Your task to perform on an android device: check out phone information Image 0: 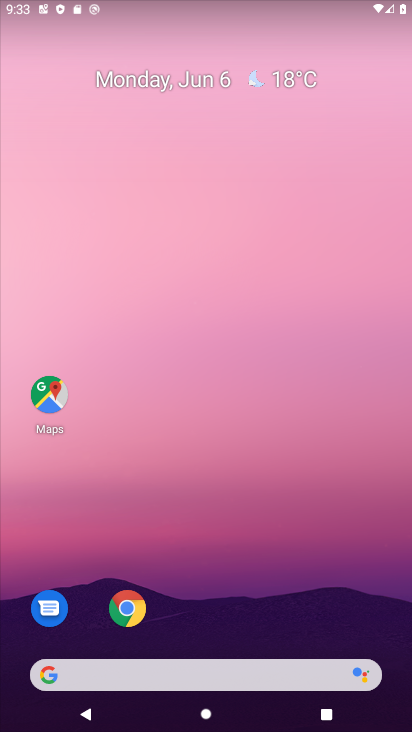
Step 0: drag from (266, 614) to (180, 101)
Your task to perform on an android device: check out phone information Image 1: 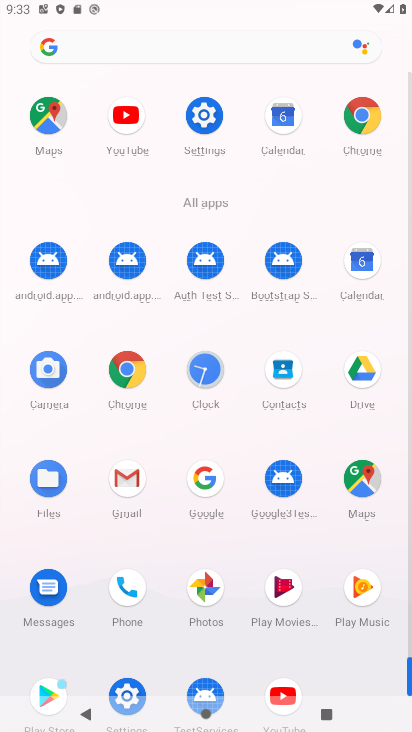
Step 1: click (204, 118)
Your task to perform on an android device: check out phone information Image 2: 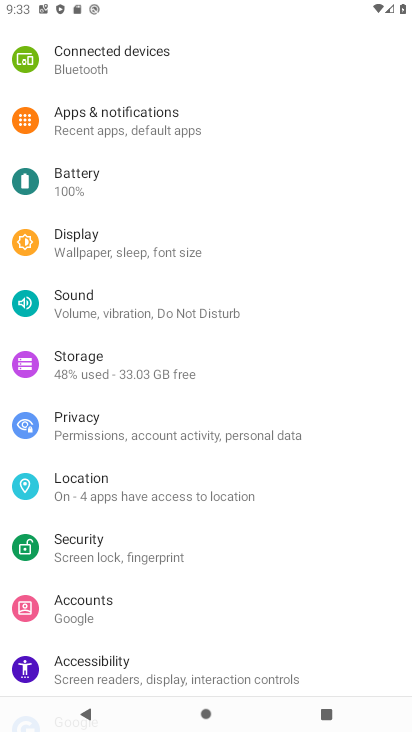
Step 2: drag from (151, 455) to (135, 368)
Your task to perform on an android device: check out phone information Image 3: 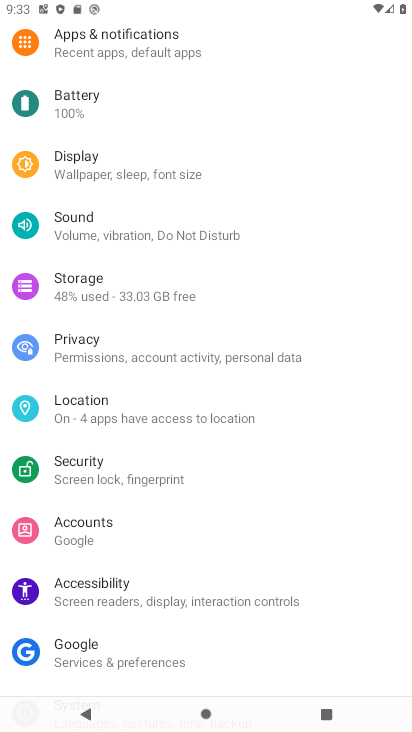
Step 3: drag from (139, 456) to (116, 363)
Your task to perform on an android device: check out phone information Image 4: 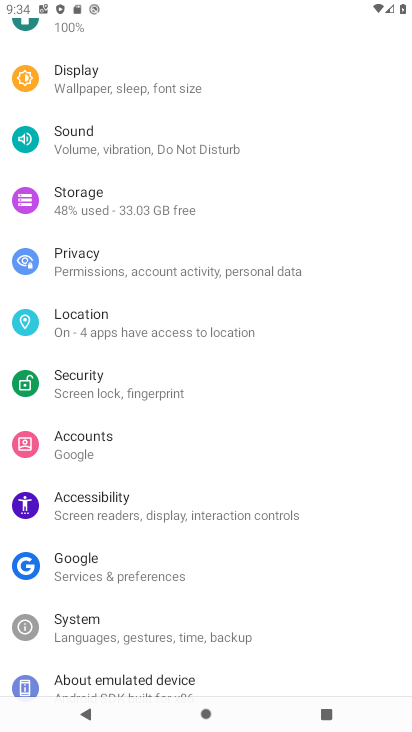
Step 4: drag from (120, 537) to (136, 402)
Your task to perform on an android device: check out phone information Image 5: 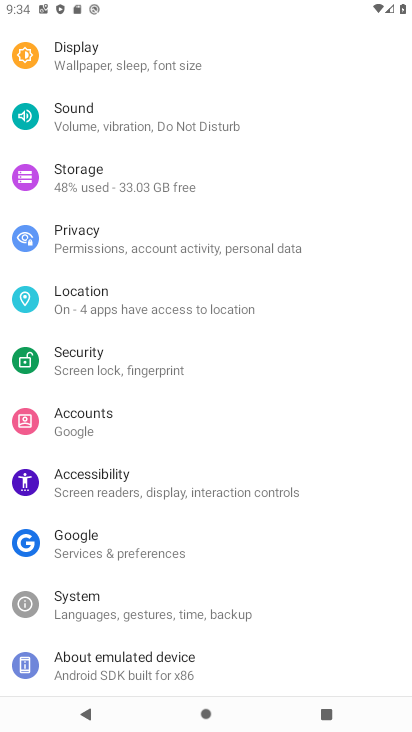
Step 5: click (119, 657)
Your task to perform on an android device: check out phone information Image 6: 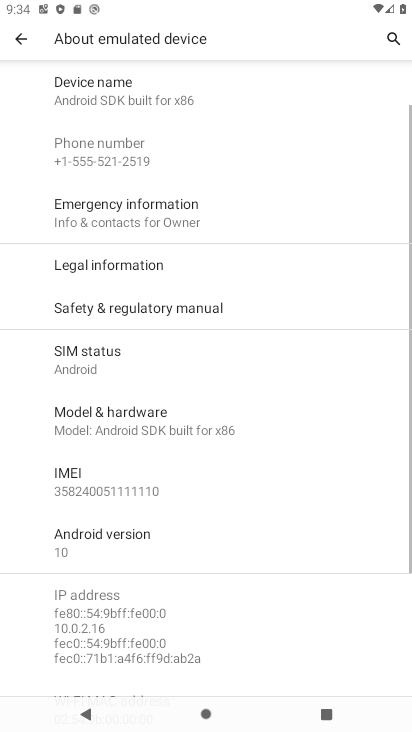
Step 6: task complete